Your task to perform on an android device: Open the calendar and show me this week's events? Image 0: 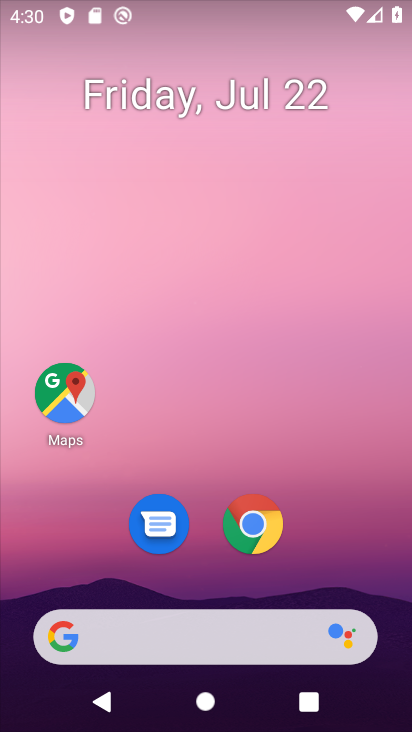
Step 0: press home button
Your task to perform on an android device: Open the calendar and show me this week's events? Image 1: 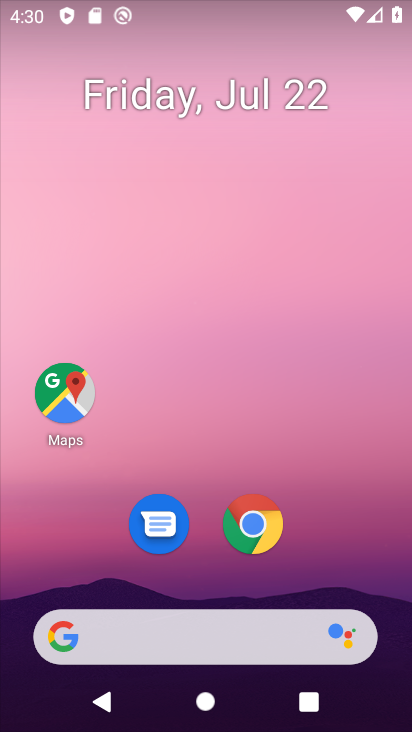
Step 1: drag from (336, 551) to (331, 125)
Your task to perform on an android device: Open the calendar and show me this week's events? Image 2: 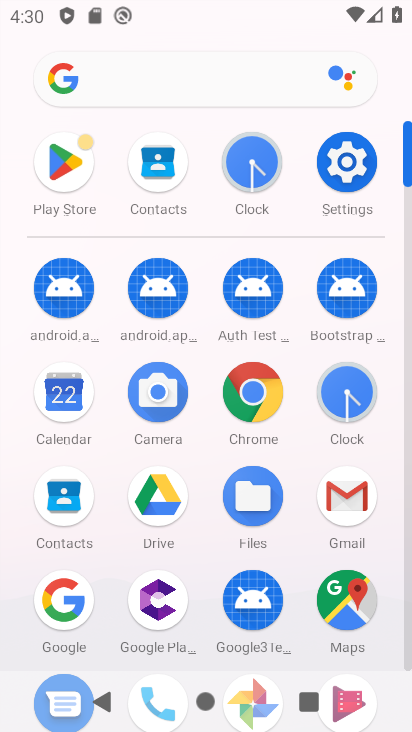
Step 2: click (60, 396)
Your task to perform on an android device: Open the calendar and show me this week's events? Image 3: 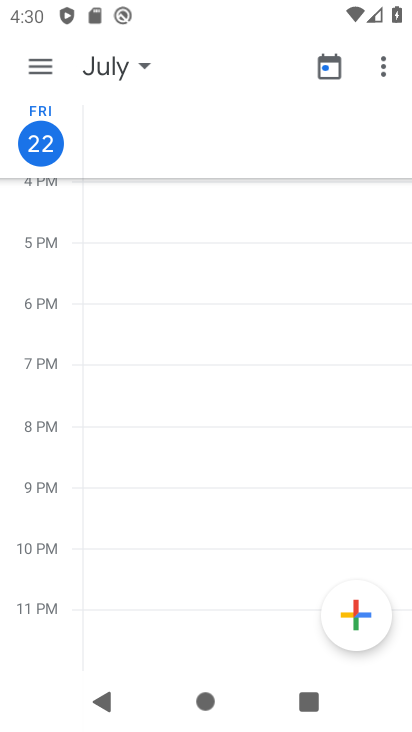
Step 3: click (41, 57)
Your task to perform on an android device: Open the calendar and show me this week's events? Image 4: 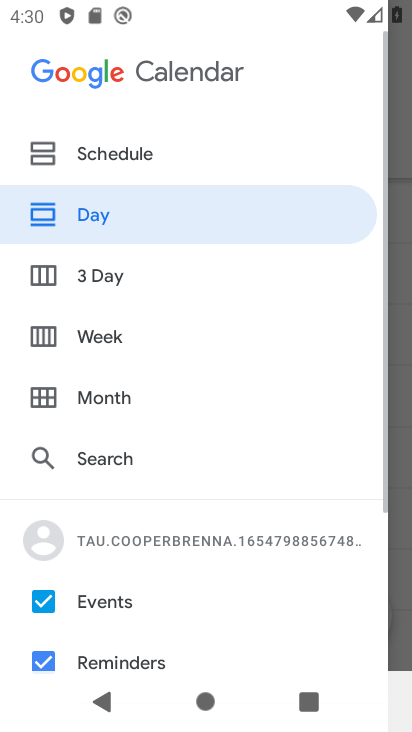
Step 4: click (53, 337)
Your task to perform on an android device: Open the calendar and show me this week's events? Image 5: 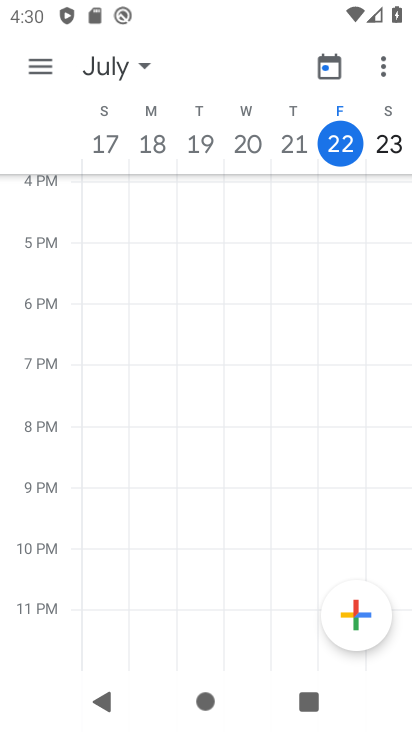
Step 5: task complete